Your task to perform on an android device: delete browsing data in the chrome app Image 0: 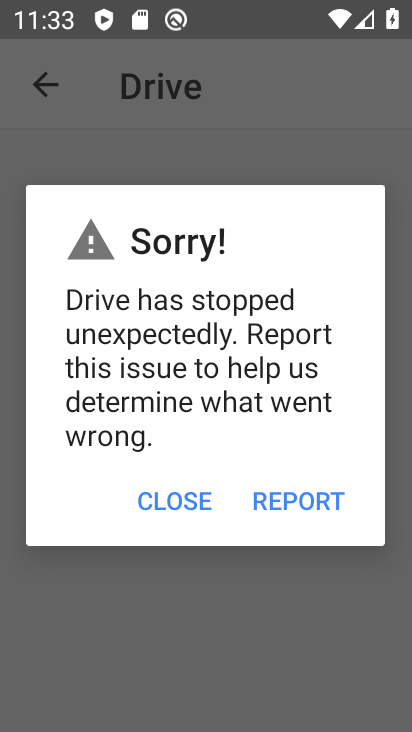
Step 0: press home button
Your task to perform on an android device: delete browsing data in the chrome app Image 1: 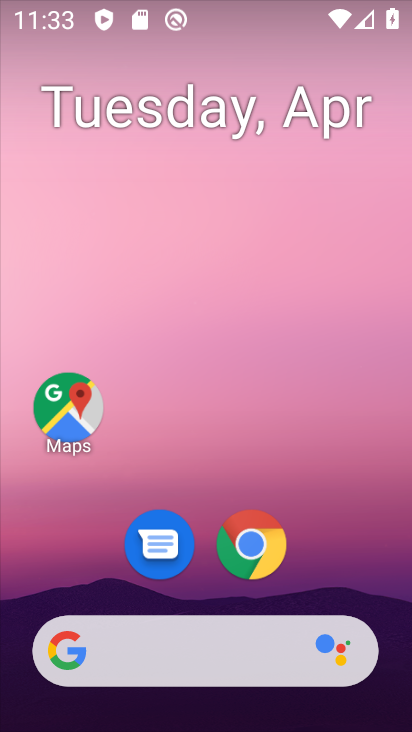
Step 1: drag from (341, 574) to (366, 124)
Your task to perform on an android device: delete browsing data in the chrome app Image 2: 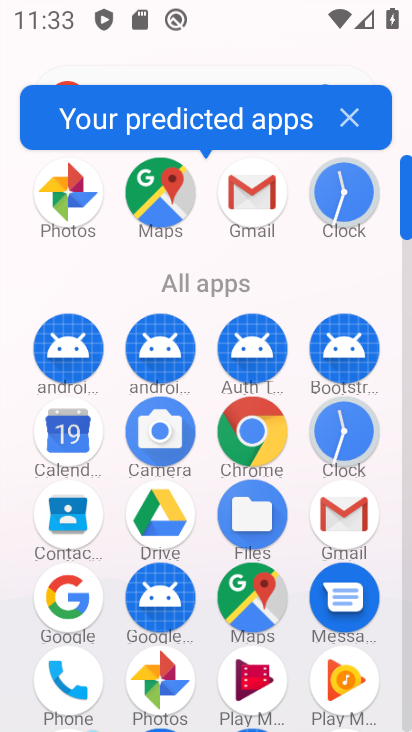
Step 2: click (270, 440)
Your task to perform on an android device: delete browsing data in the chrome app Image 3: 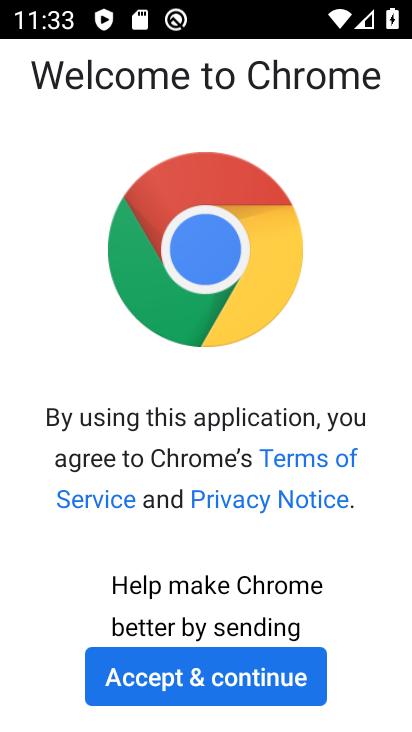
Step 3: click (224, 662)
Your task to perform on an android device: delete browsing data in the chrome app Image 4: 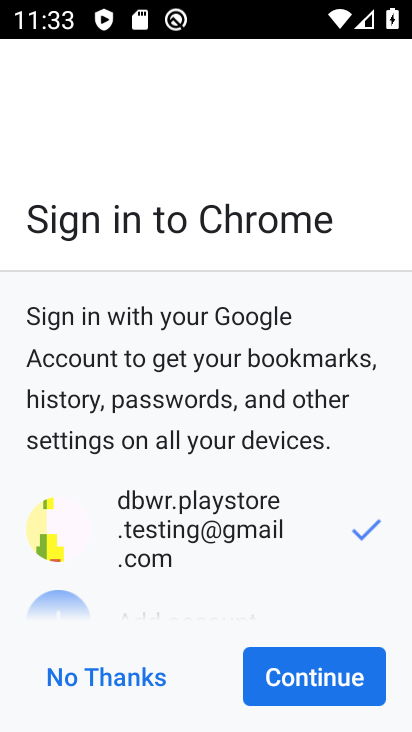
Step 4: click (278, 670)
Your task to perform on an android device: delete browsing data in the chrome app Image 5: 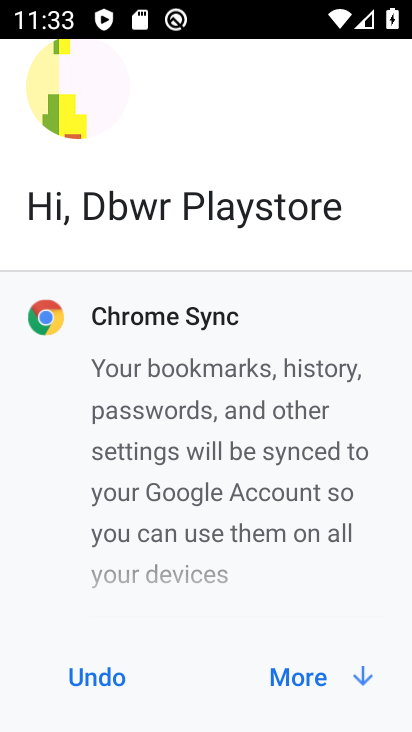
Step 5: click (289, 680)
Your task to perform on an android device: delete browsing data in the chrome app Image 6: 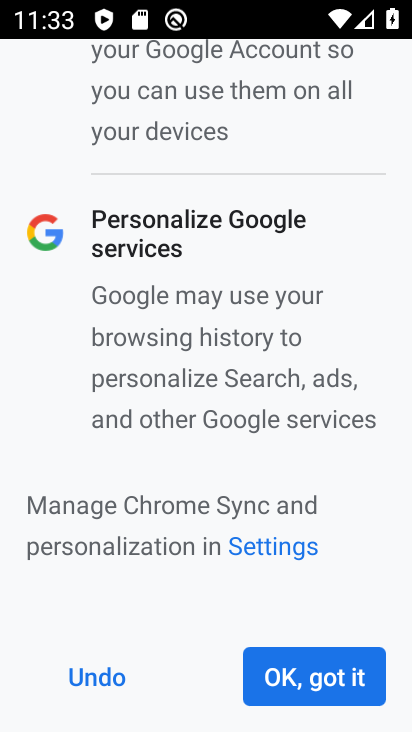
Step 6: click (289, 680)
Your task to perform on an android device: delete browsing data in the chrome app Image 7: 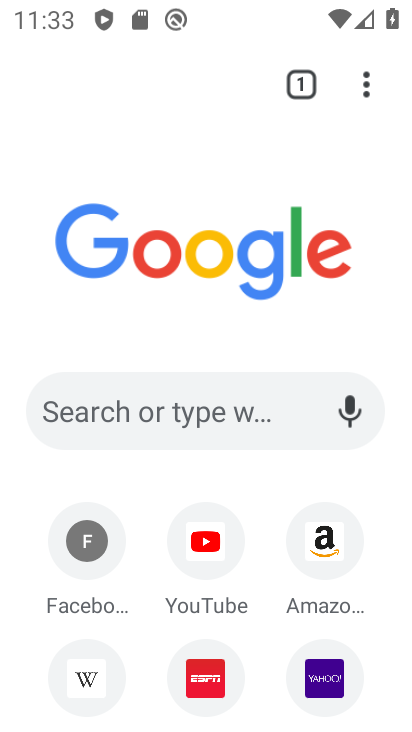
Step 7: click (365, 91)
Your task to perform on an android device: delete browsing data in the chrome app Image 8: 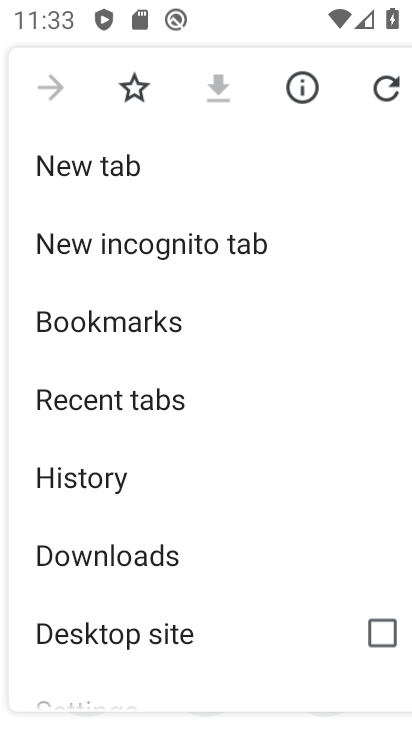
Step 8: drag from (307, 564) to (303, 390)
Your task to perform on an android device: delete browsing data in the chrome app Image 9: 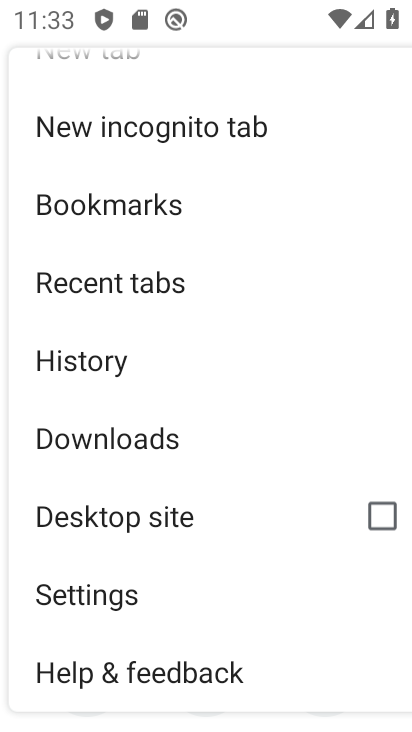
Step 9: click (105, 596)
Your task to perform on an android device: delete browsing data in the chrome app Image 10: 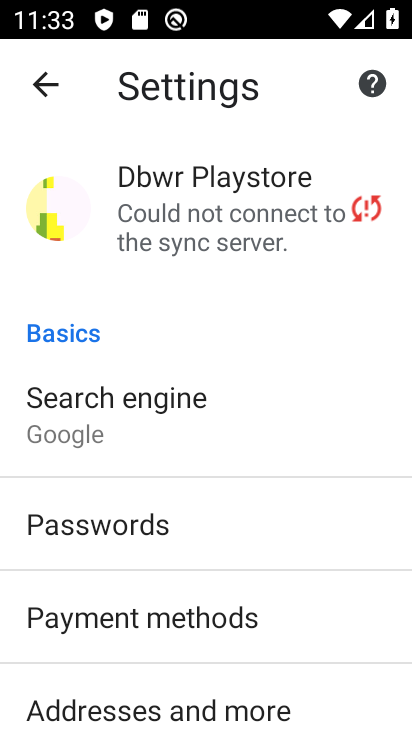
Step 10: drag from (323, 625) to (332, 534)
Your task to perform on an android device: delete browsing data in the chrome app Image 11: 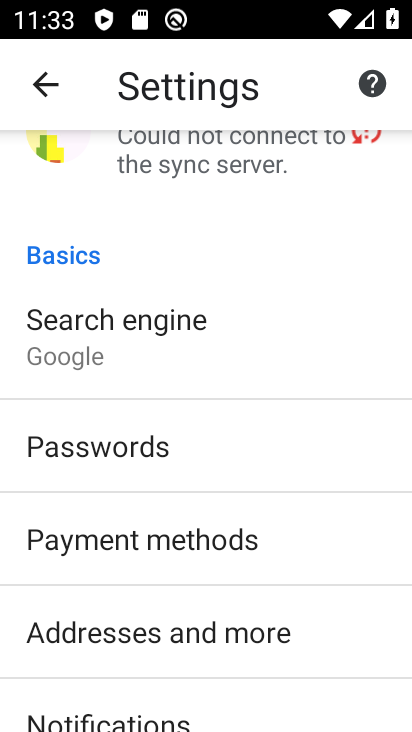
Step 11: drag from (336, 634) to (333, 521)
Your task to perform on an android device: delete browsing data in the chrome app Image 12: 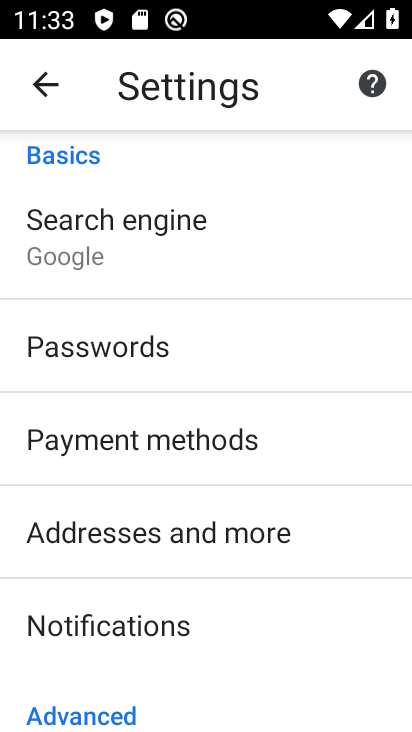
Step 12: drag from (336, 643) to (333, 548)
Your task to perform on an android device: delete browsing data in the chrome app Image 13: 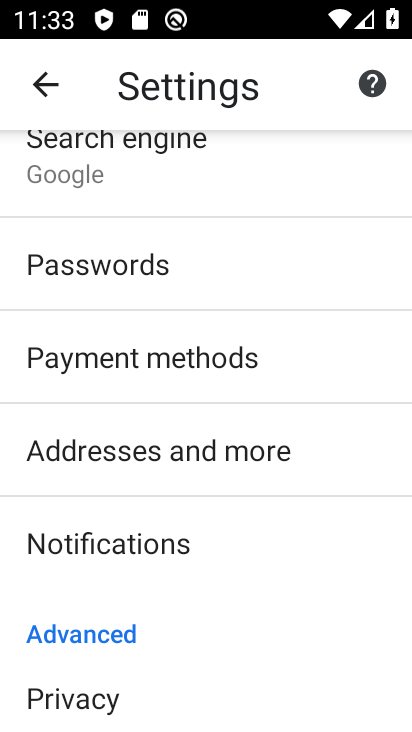
Step 13: drag from (333, 637) to (334, 535)
Your task to perform on an android device: delete browsing data in the chrome app Image 14: 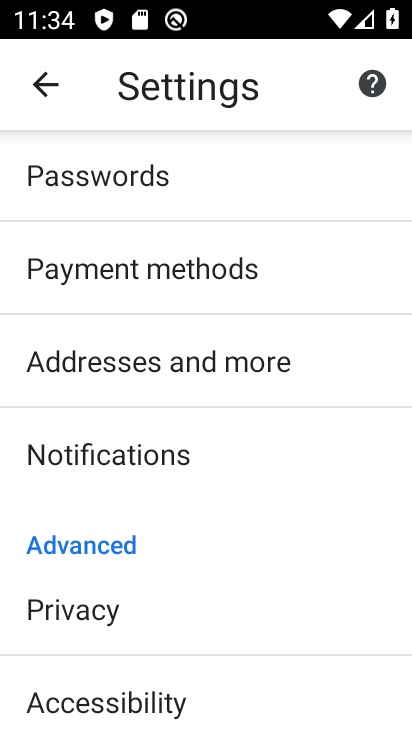
Step 14: drag from (302, 662) to (330, 541)
Your task to perform on an android device: delete browsing data in the chrome app Image 15: 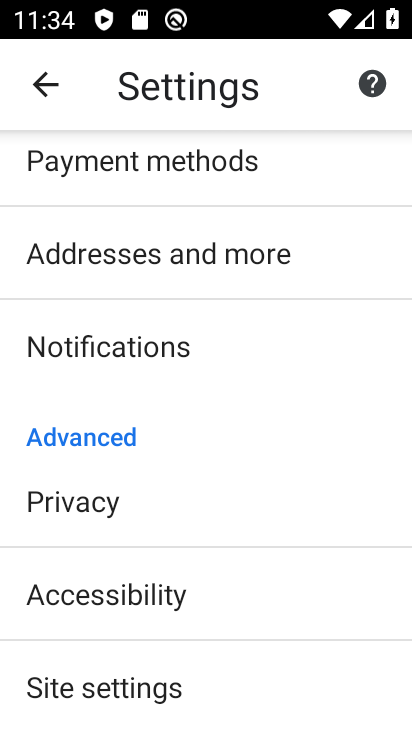
Step 15: click (194, 505)
Your task to perform on an android device: delete browsing data in the chrome app Image 16: 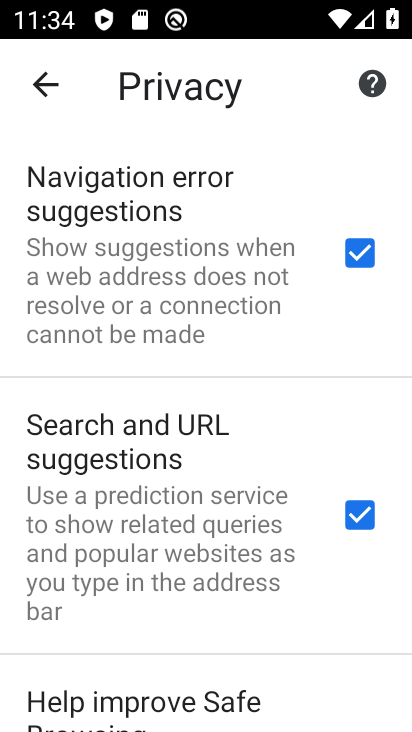
Step 16: drag from (319, 636) to (308, 486)
Your task to perform on an android device: delete browsing data in the chrome app Image 17: 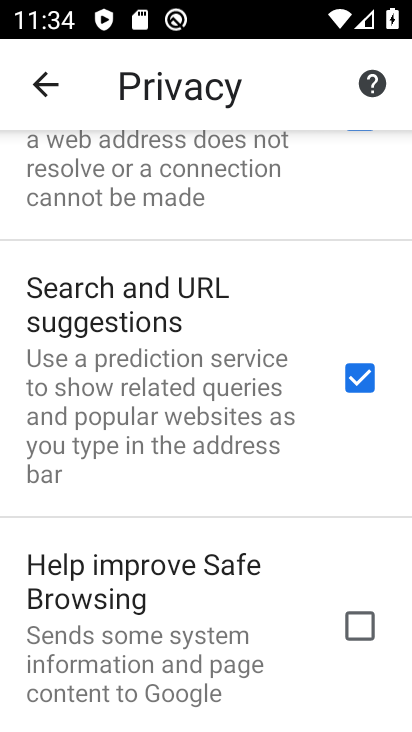
Step 17: drag from (297, 614) to (301, 489)
Your task to perform on an android device: delete browsing data in the chrome app Image 18: 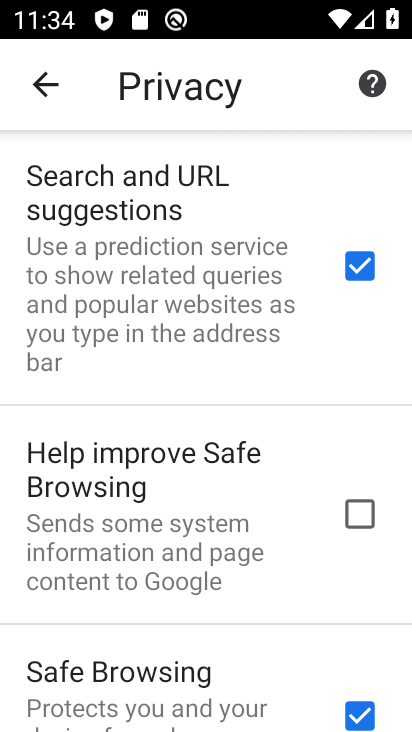
Step 18: drag from (292, 639) to (289, 510)
Your task to perform on an android device: delete browsing data in the chrome app Image 19: 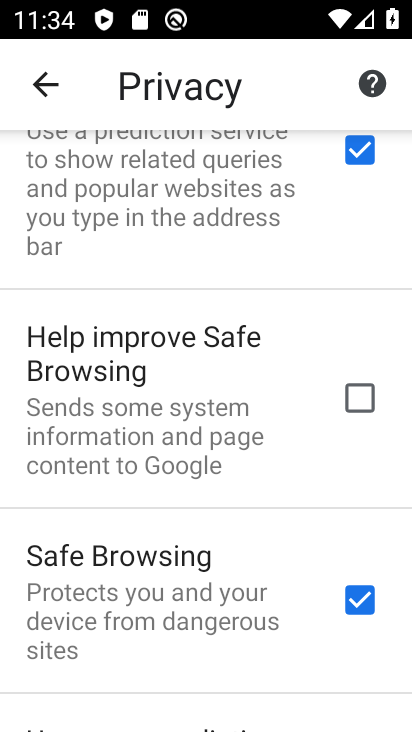
Step 19: drag from (290, 643) to (300, 531)
Your task to perform on an android device: delete browsing data in the chrome app Image 20: 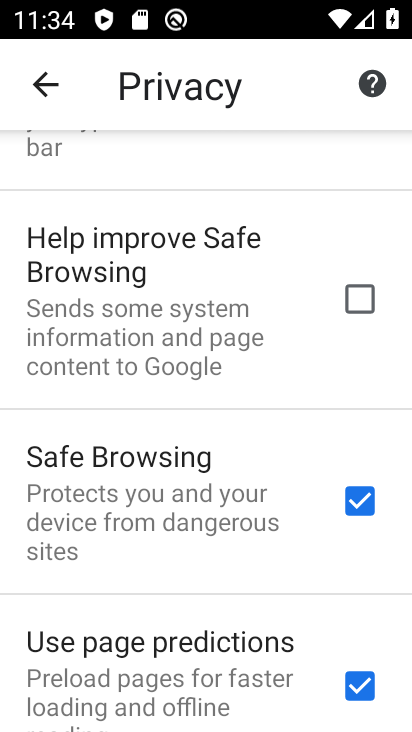
Step 20: drag from (299, 685) to (297, 482)
Your task to perform on an android device: delete browsing data in the chrome app Image 21: 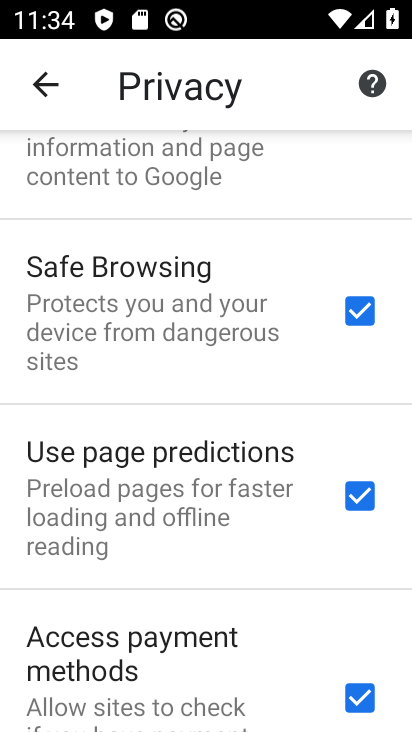
Step 21: drag from (287, 676) to (293, 498)
Your task to perform on an android device: delete browsing data in the chrome app Image 22: 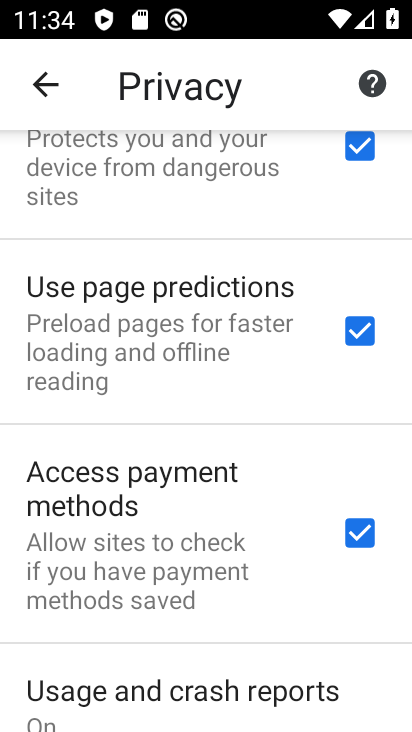
Step 22: drag from (268, 639) to (281, 385)
Your task to perform on an android device: delete browsing data in the chrome app Image 23: 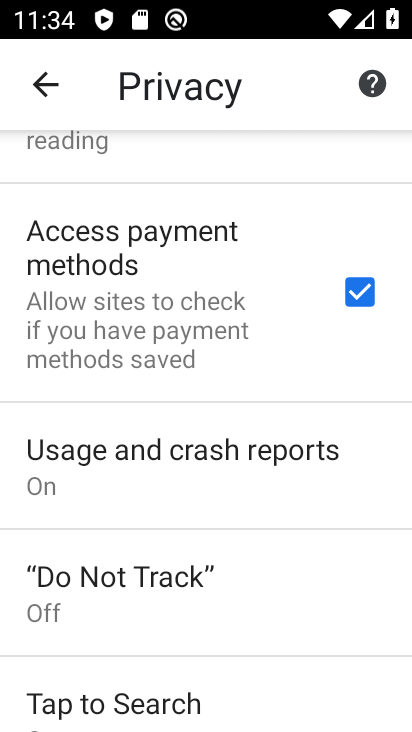
Step 23: drag from (285, 622) to (284, 411)
Your task to perform on an android device: delete browsing data in the chrome app Image 24: 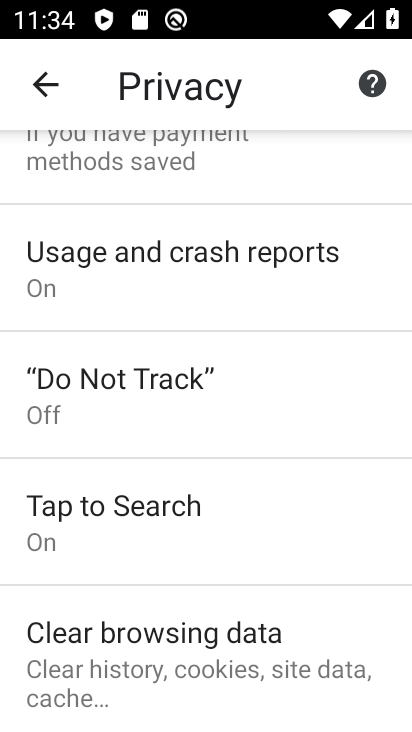
Step 24: click (213, 652)
Your task to perform on an android device: delete browsing data in the chrome app Image 25: 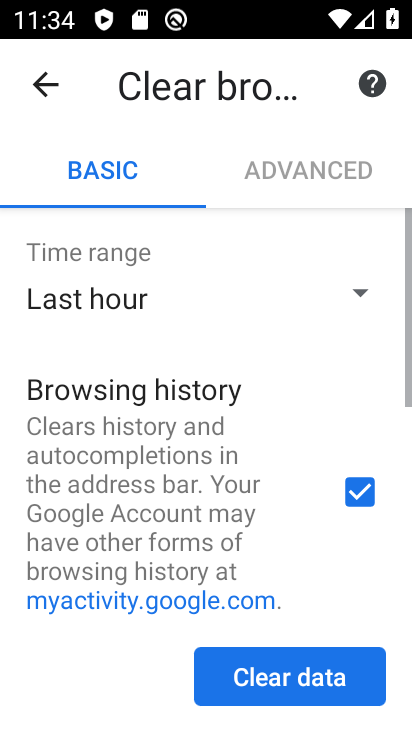
Step 25: click (263, 674)
Your task to perform on an android device: delete browsing data in the chrome app Image 26: 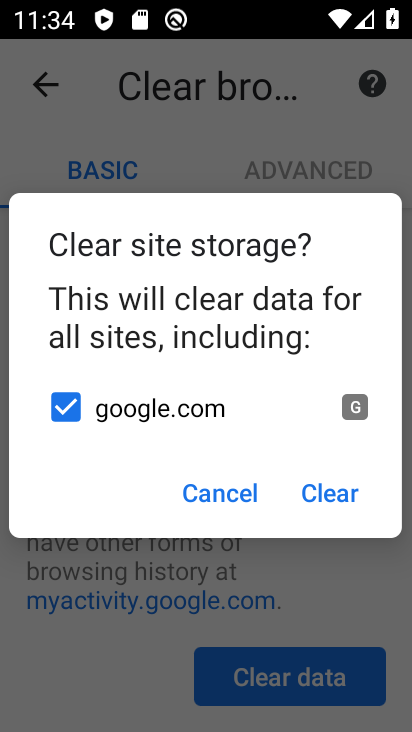
Step 26: click (330, 492)
Your task to perform on an android device: delete browsing data in the chrome app Image 27: 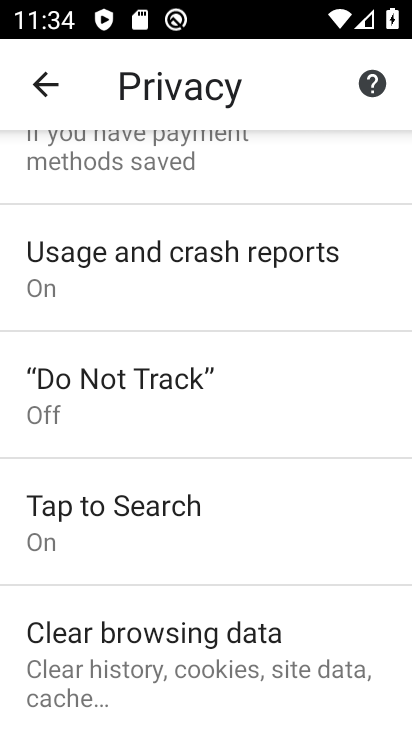
Step 27: task complete